Your task to perform on an android device: turn on priority inbox in the gmail app Image 0: 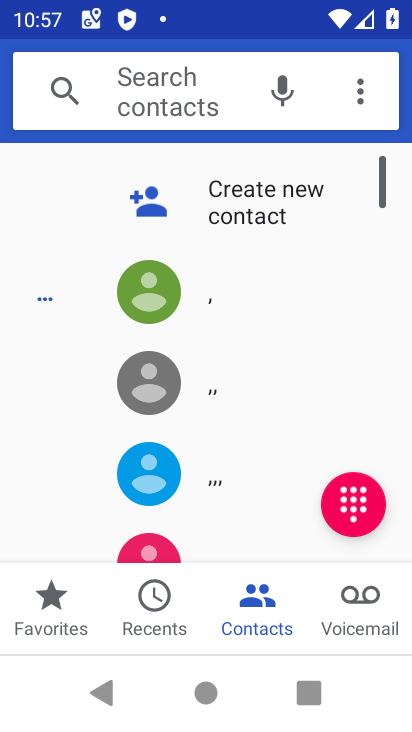
Step 0: press home button
Your task to perform on an android device: turn on priority inbox in the gmail app Image 1: 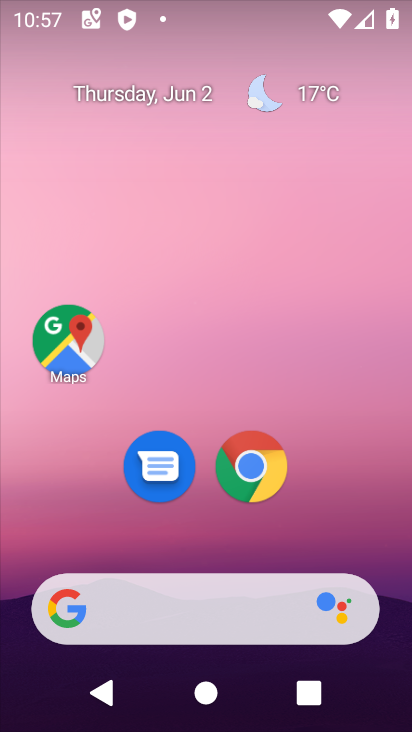
Step 1: drag from (300, 573) to (295, 255)
Your task to perform on an android device: turn on priority inbox in the gmail app Image 2: 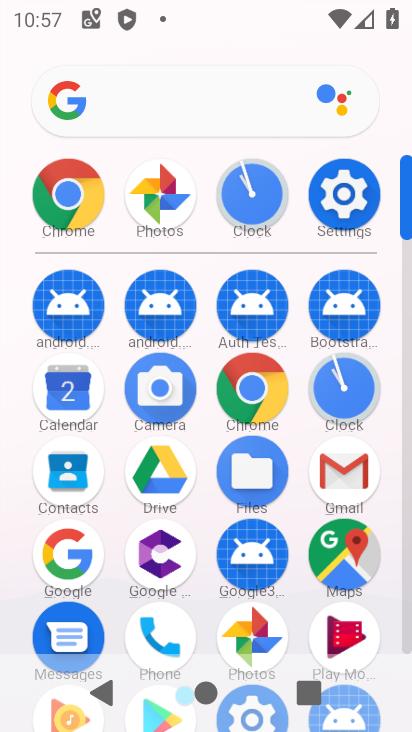
Step 2: click (340, 462)
Your task to perform on an android device: turn on priority inbox in the gmail app Image 3: 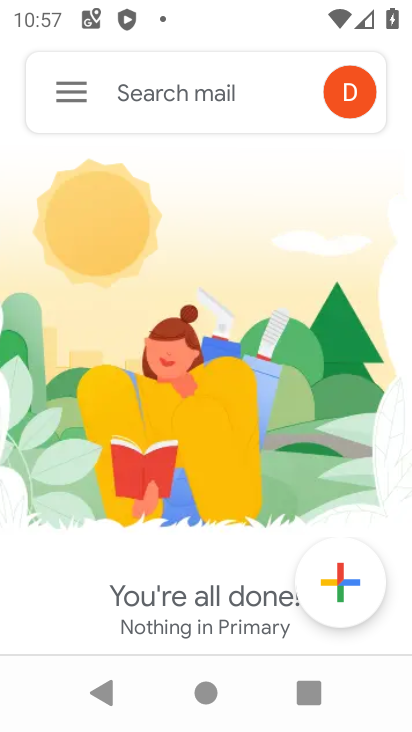
Step 3: click (72, 73)
Your task to perform on an android device: turn on priority inbox in the gmail app Image 4: 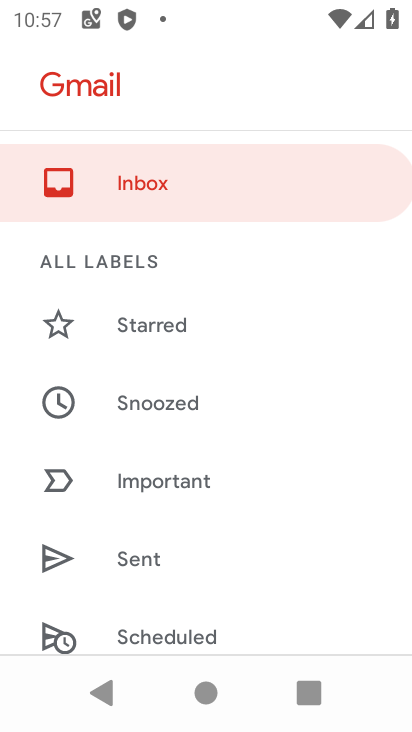
Step 4: drag from (157, 636) to (203, 288)
Your task to perform on an android device: turn on priority inbox in the gmail app Image 5: 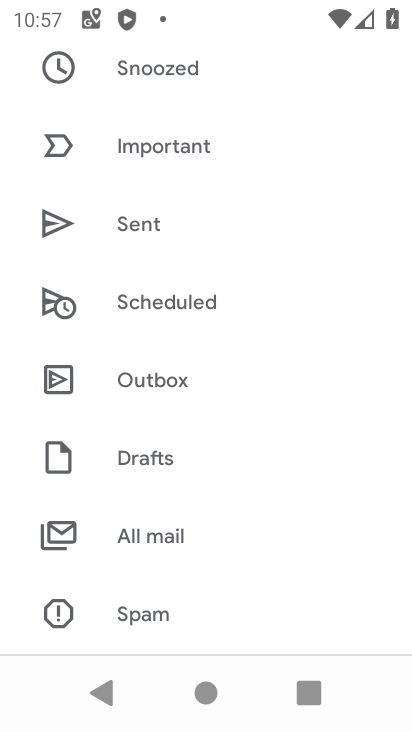
Step 5: drag from (153, 606) to (196, 258)
Your task to perform on an android device: turn on priority inbox in the gmail app Image 6: 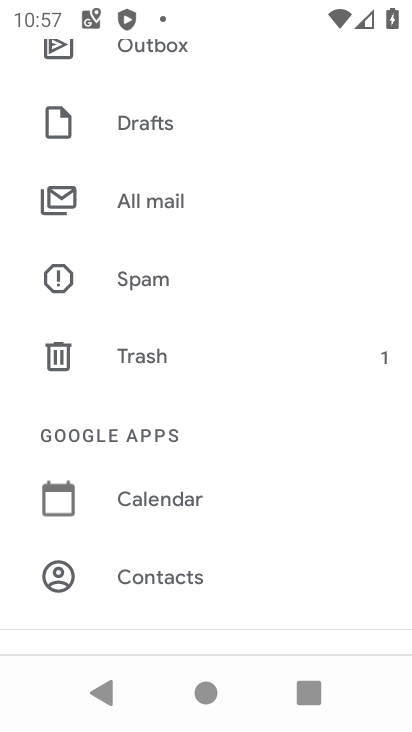
Step 6: drag from (97, 554) to (119, 348)
Your task to perform on an android device: turn on priority inbox in the gmail app Image 7: 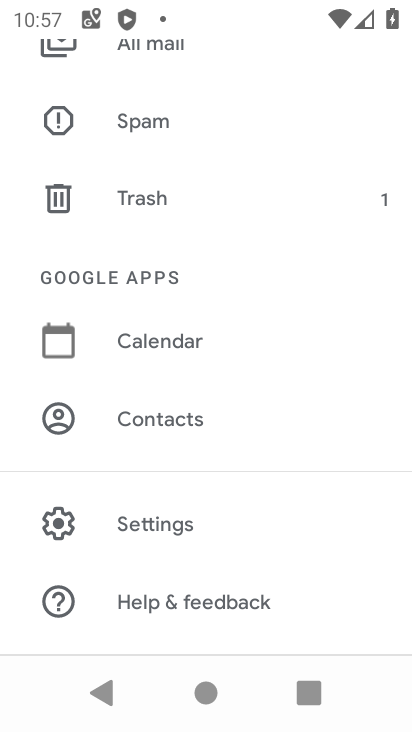
Step 7: click (117, 498)
Your task to perform on an android device: turn on priority inbox in the gmail app Image 8: 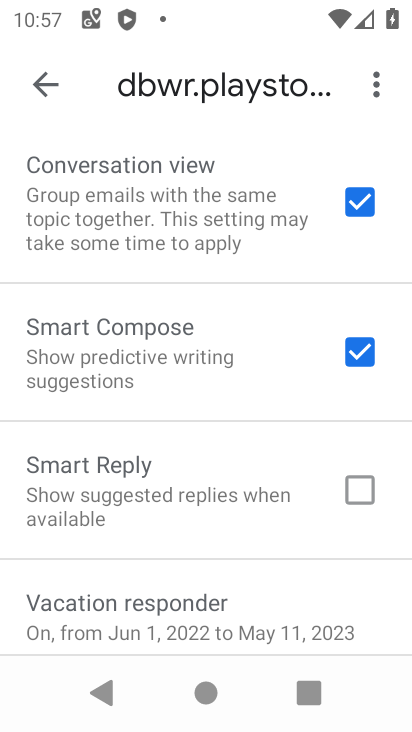
Step 8: drag from (158, 150) to (117, 581)
Your task to perform on an android device: turn on priority inbox in the gmail app Image 9: 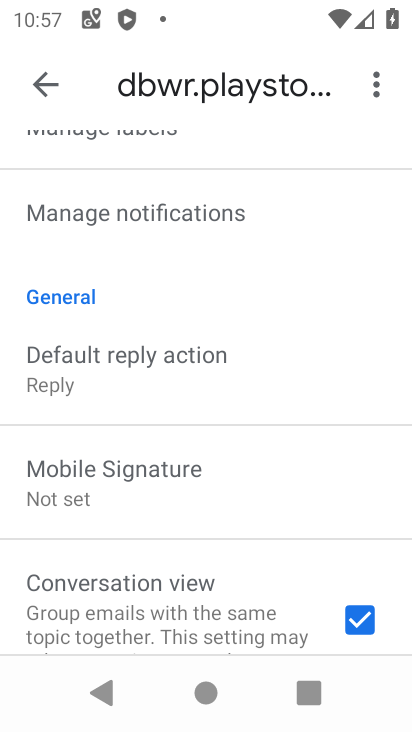
Step 9: drag from (103, 276) to (118, 635)
Your task to perform on an android device: turn on priority inbox in the gmail app Image 10: 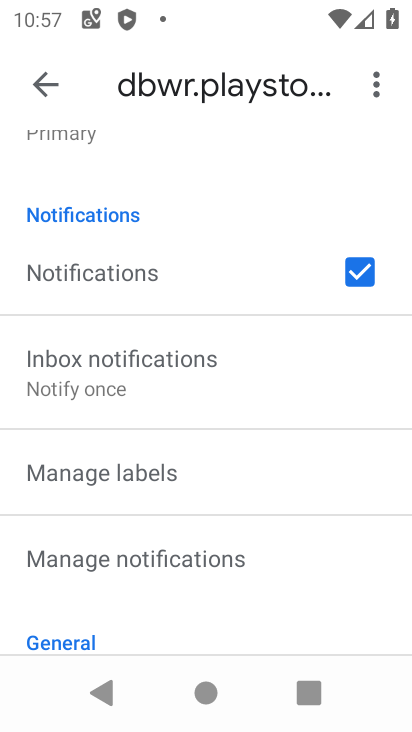
Step 10: drag from (127, 221) to (144, 471)
Your task to perform on an android device: turn on priority inbox in the gmail app Image 11: 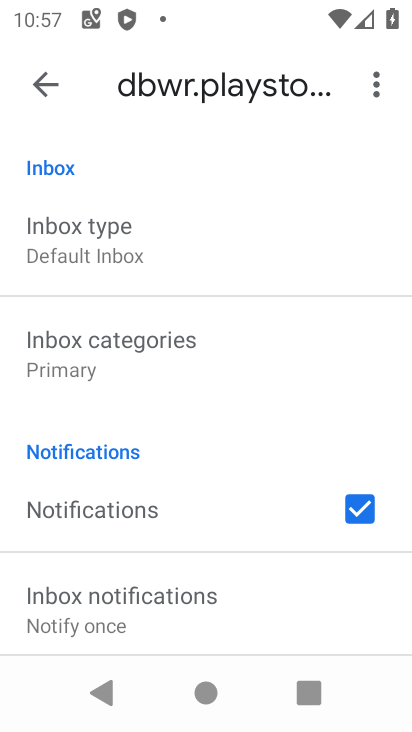
Step 11: click (107, 260)
Your task to perform on an android device: turn on priority inbox in the gmail app Image 12: 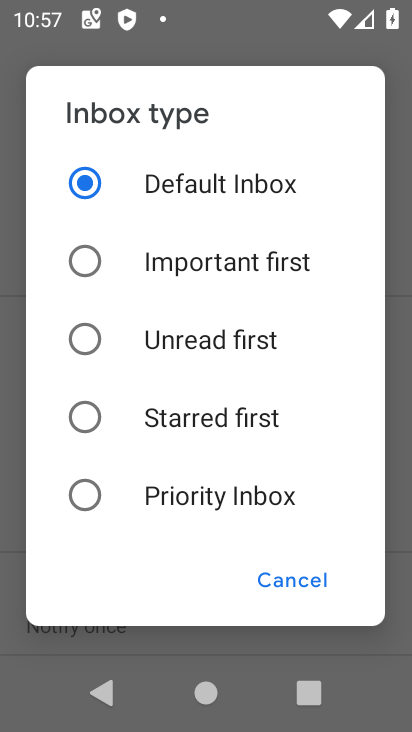
Step 12: click (131, 487)
Your task to perform on an android device: turn on priority inbox in the gmail app Image 13: 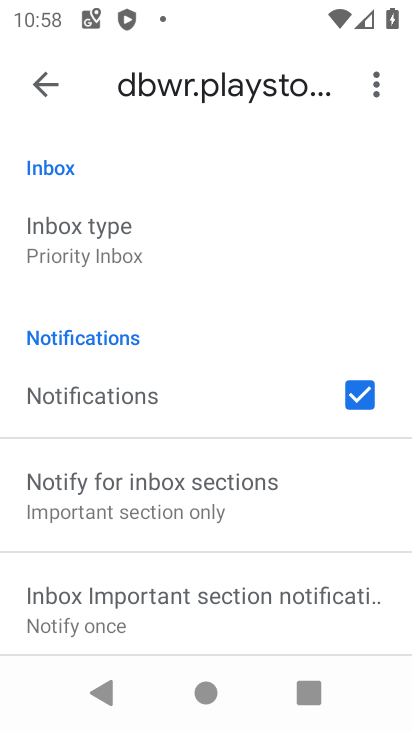
Step 13: task complete